Your task to perform on an android device: Open wifi settings Image 0: 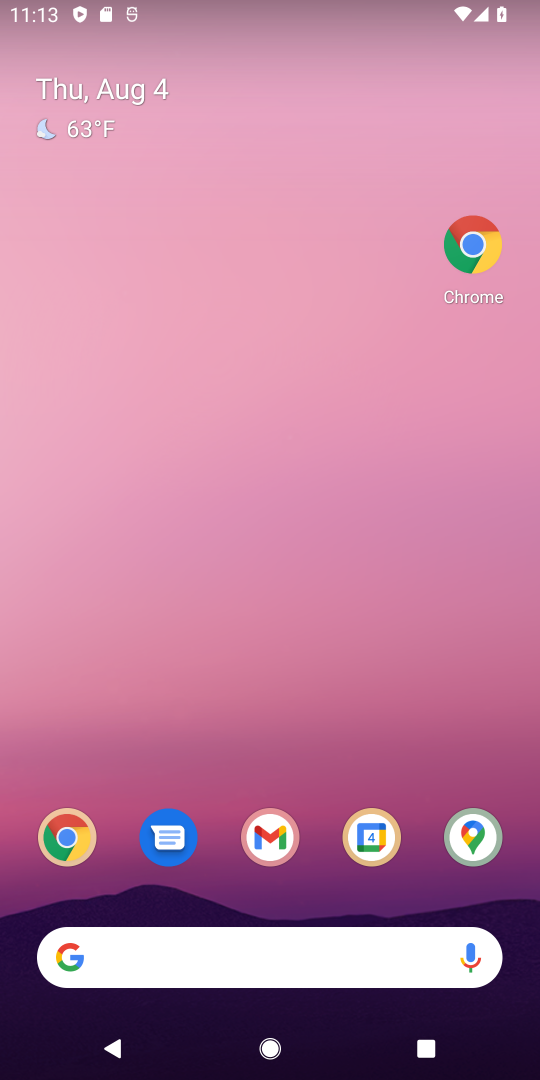
Step 0: press home button
Your task to perform on an android device: Open wifi settings Image 1: 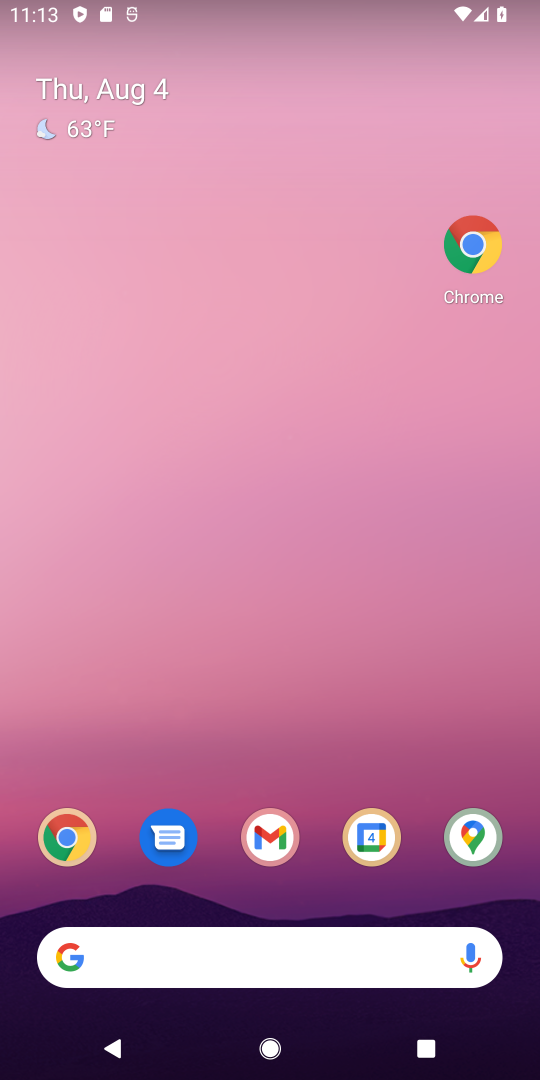
Step 1: drag from (308, 885) to (292, 95)
Your task to perform on an android device: Open wifi settings Image 2: 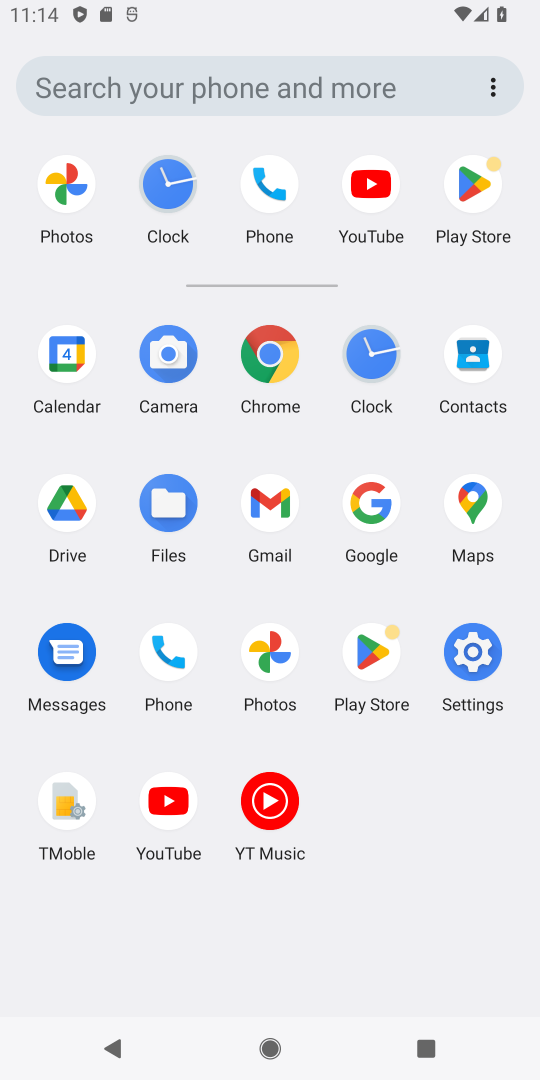
Step 2: click (470, 637)
Your task to perform on an android device: Open wifi settings Image 3: 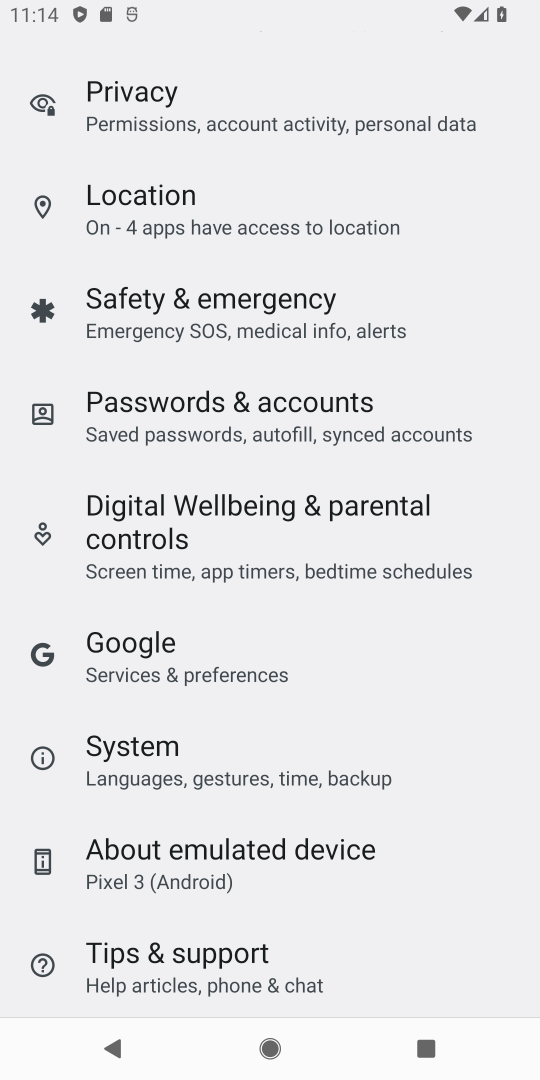
Step 3: drag from (214, 138) to (176, 1075)
Your task to perform on an android device: Open wifi settings Image 4: 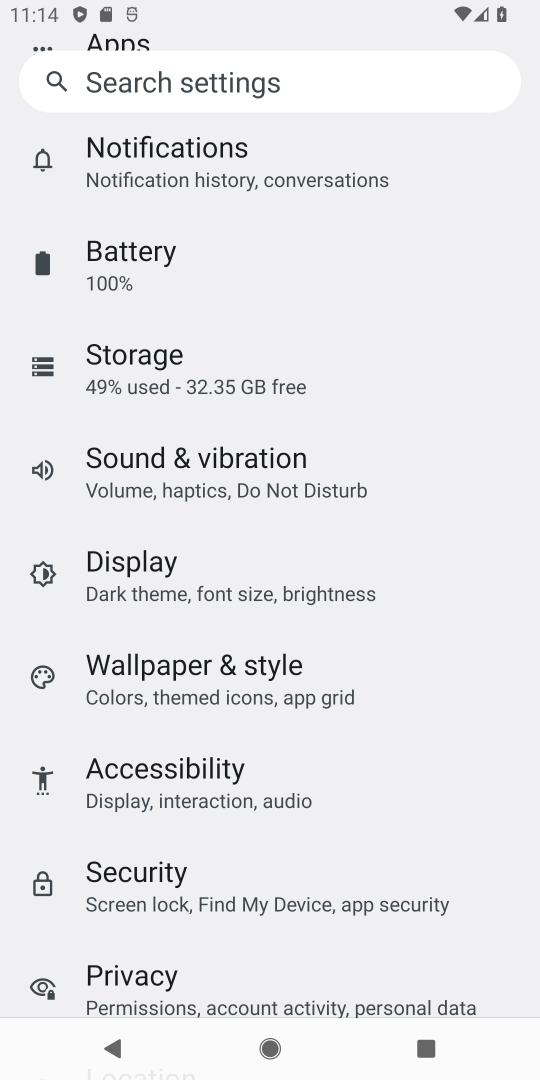
Step 4: drag from (226, 227) to (214, 1076)
Your task to perform on an android device: Open wifi settings Image 5: 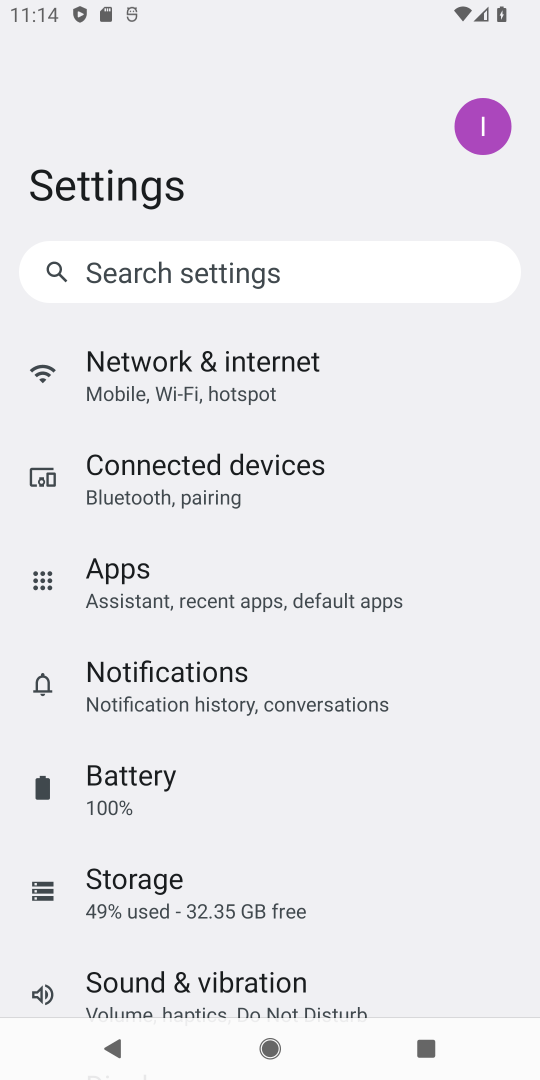
Step 5: click (209, 369)
Your task to perform on an android device: Open wifi settings Image 6: 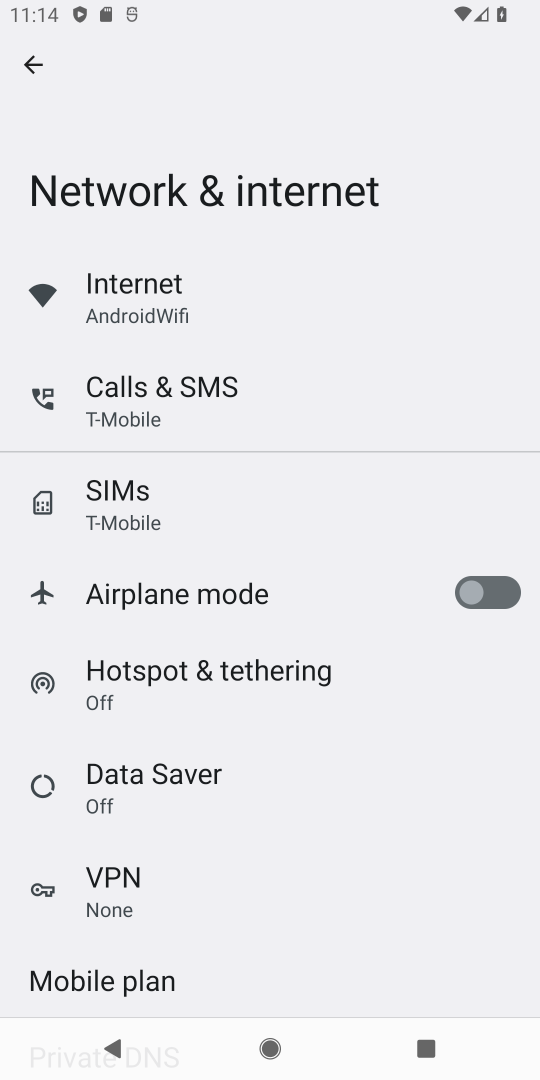
Step 6: click (198, 282)
Your task to perform on an android device: Open wifi settings Image 7: 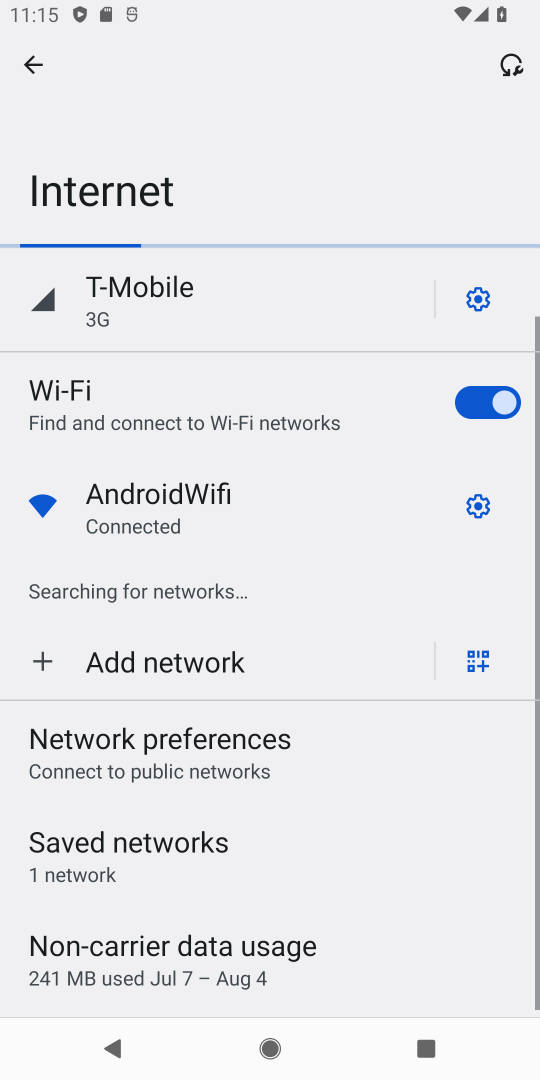
Step 7: task complete